Your task to perform on an android device: snooze an email in the gmail app Image 0: 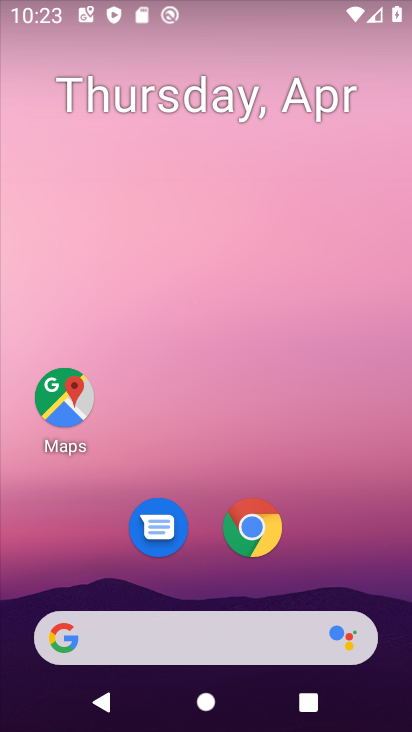
Step 0: drag from (358, 480) to (351, 43)
Your task to perform on an android device: snooze an email in the gmail app Image 1: 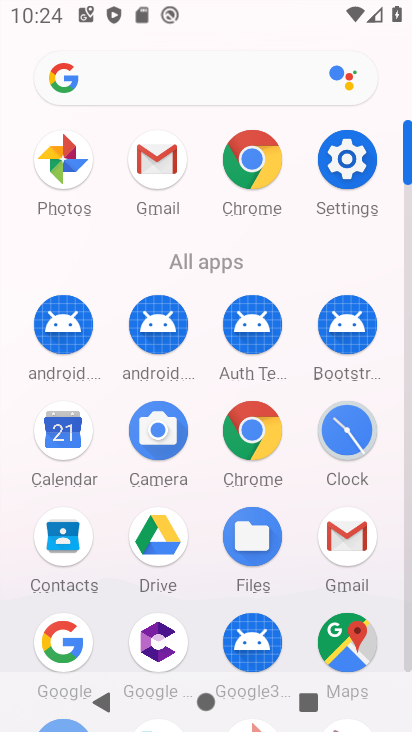
Step 1: click (167, 196)
Your task to perform on an android device: snooze an email in the gmail app Image 2: 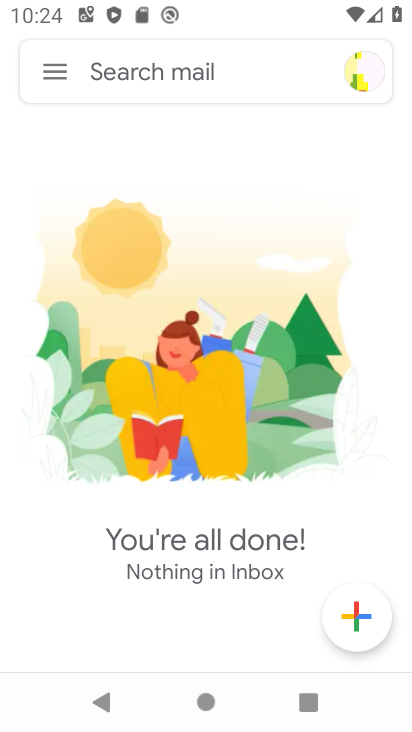
Step 2: click (56, 79)
Your task to perform on an android device: snooze an email in the gmail app Image 3: 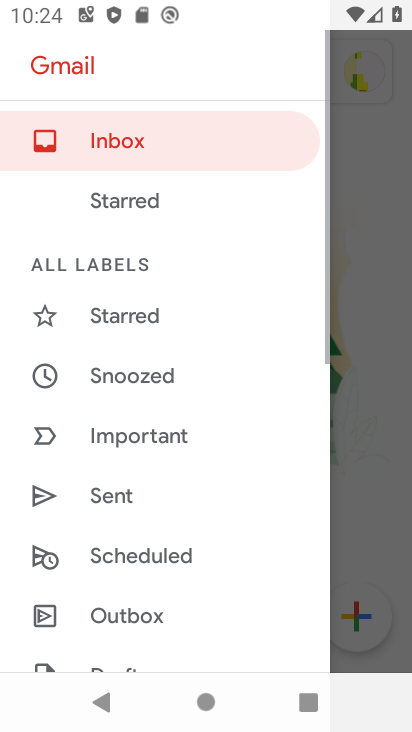
Step 3: drag from (144, 597) to (242, 140)
Your task to perform on an android device: snooze an email in the gmail app Image 4: 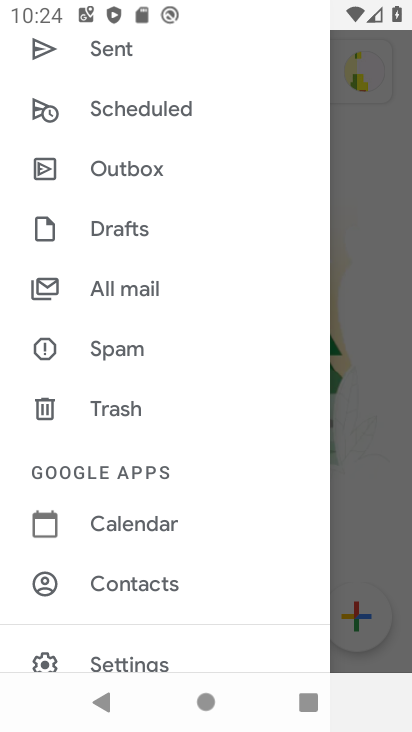
Step 4: drag from (183, 558) to (242, 158)
Your task to perform on an android device: snooze an email in the gmail app Image 5: 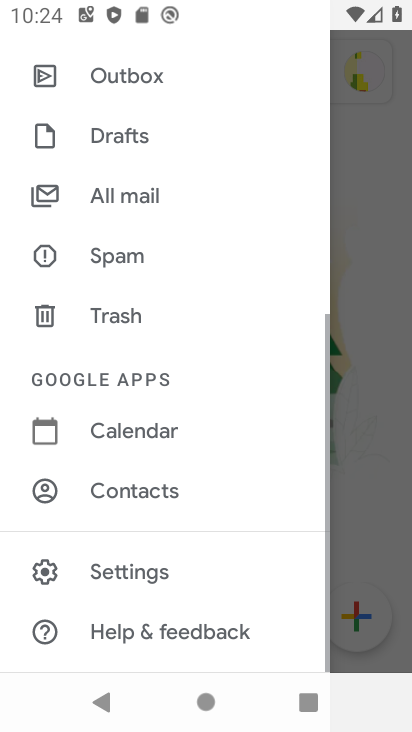
Step 5: click (118, 573)
Your task to perform on an android device: snooze an email in the gmail app Image 6: 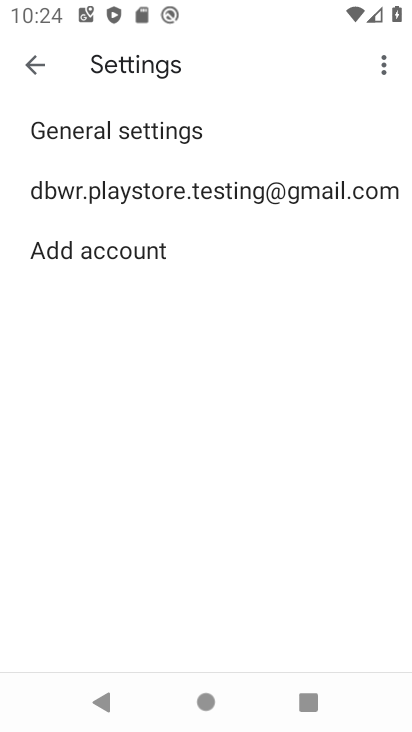
Step 6: click (157, 189)
Your task to perform on an android device: snooze an email in the gmail app Image 7: 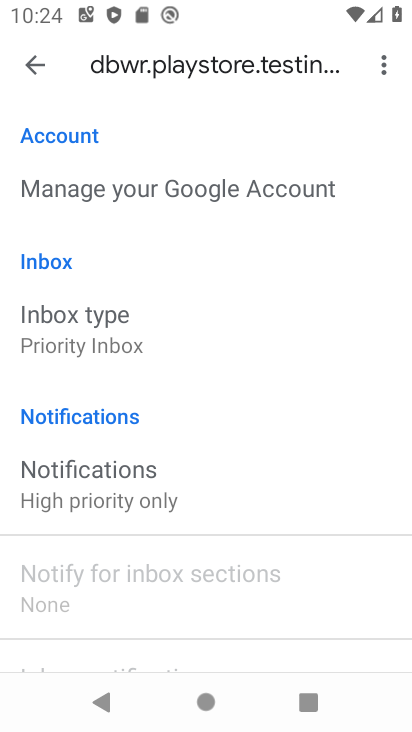
Step 7: drag from (254, 423) to (269, 209)
Your task to perform on an android device: snooze an email in the gmail app Image 8: 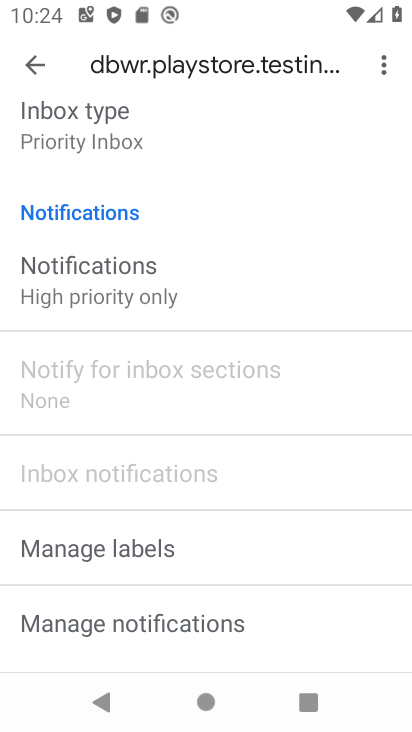
Step 8: drag from (261, 303) to (247, 504)
Your task to perform on an android device: snooze an email in the gmail app Image 9: 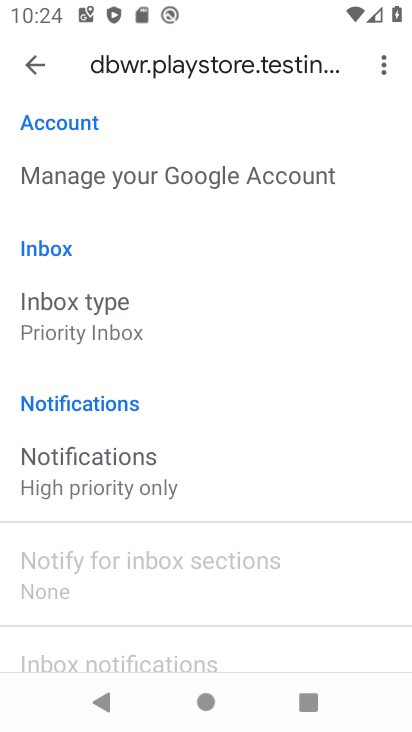
Step 9: click (33, 72)
Your task to perform on an android device: snooze an email in the gmail app Image 10: 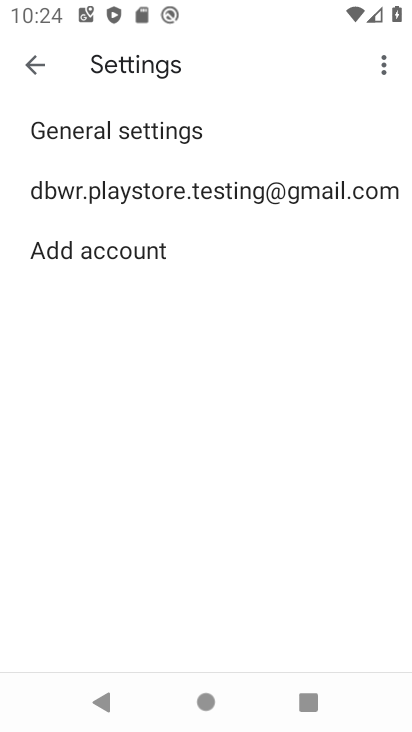
Step 10: click (33, 72)
Your task to perform on an android device: snooze an email in the gmail app Image 11: 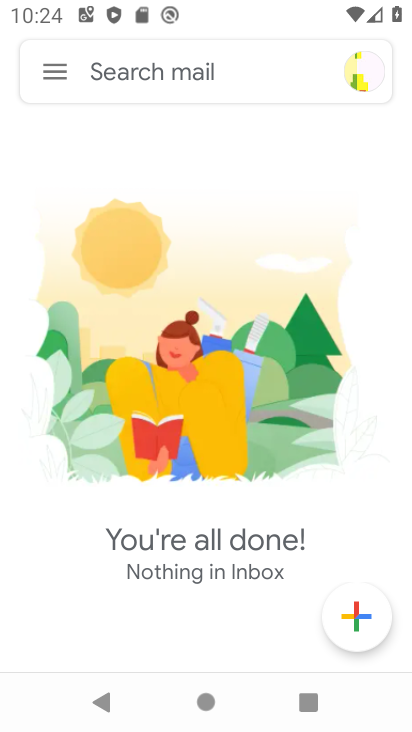
Step 11: task complete